Your task to perform on an android device: stop showing notifications on the lock screen Image 0: 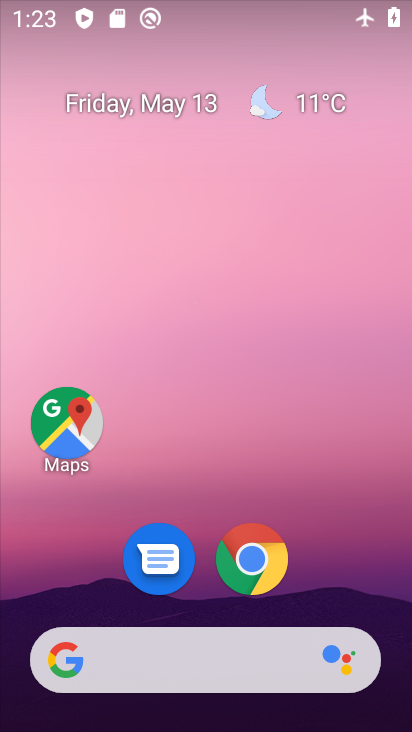
Step 0: click (354, 289)
Your task to perform on an android device: stop showing notifications on the lock screen Image 1: 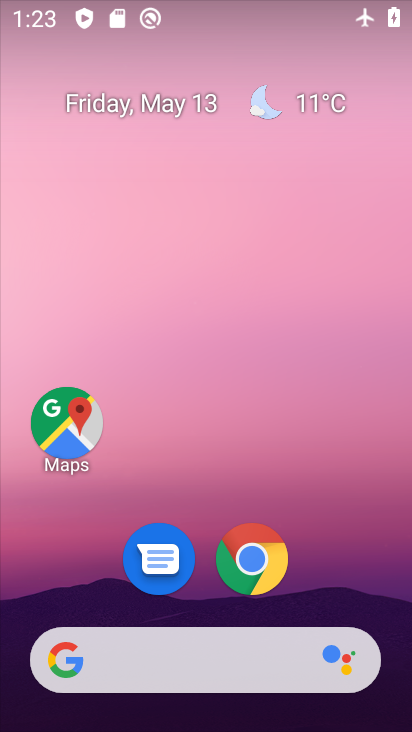
Step 1: drag from (389, 470) to (362, 261)
Your task to perform on an android device: stop showing notifications on the lock screen Image 2: 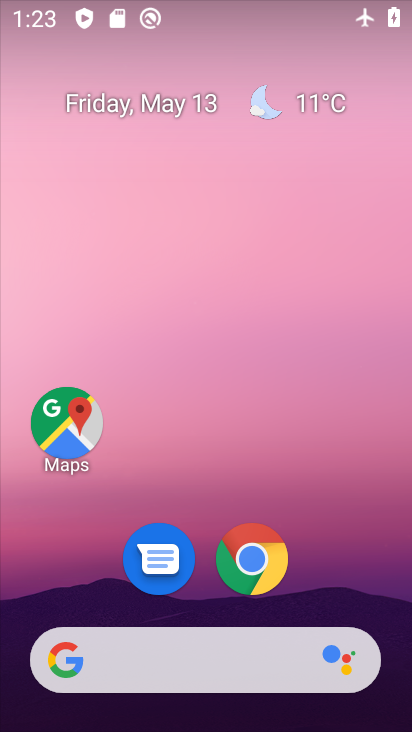
Step 2: drag from (394, 601) to (353, 257)
Your task to perform on an android device: stop showing notifications on the lock screen Image 3: 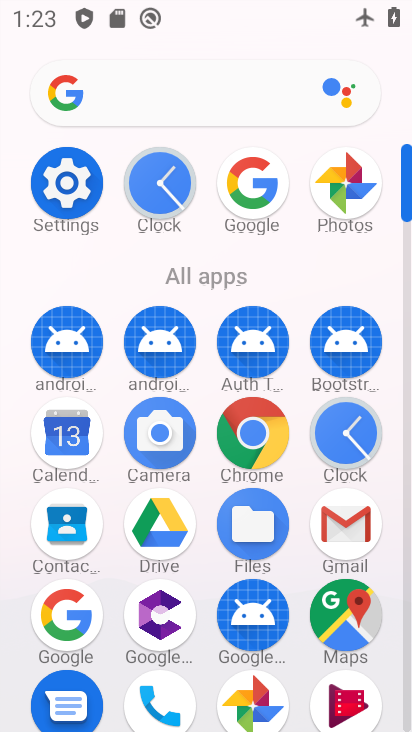
Step 3: click (74, 189)
Your task to perform on an android device: stop showing notifications on the lock screen Image 4: 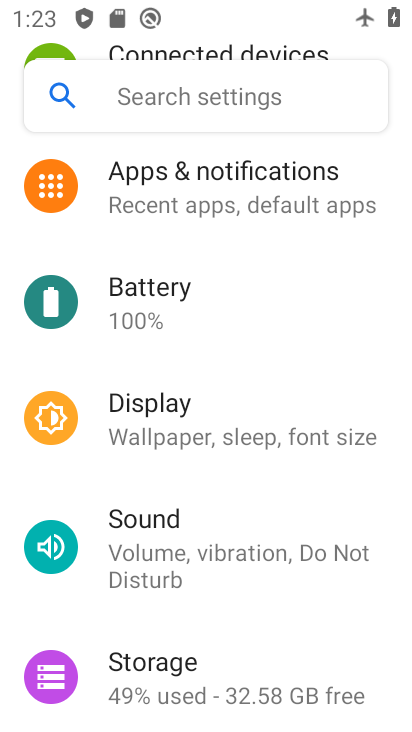
Step 4: click (218, 188)
Your task to perform on an android device: stop showing notifications on the lock screen Image 5: 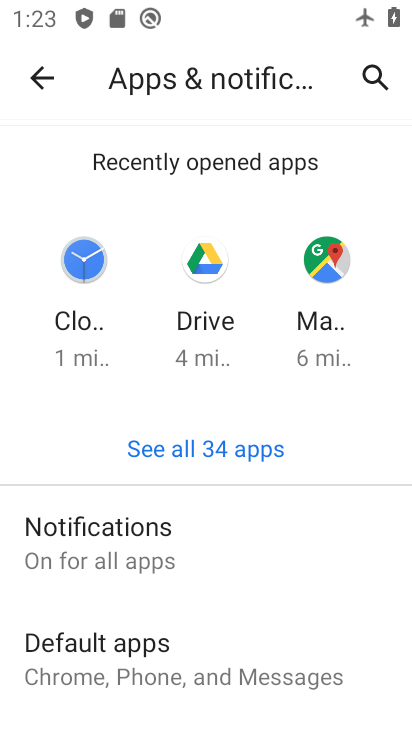
Step 5: click (103, 542)
Your task to perform on an android device: stop showing notifications on the lock screen Image 6: 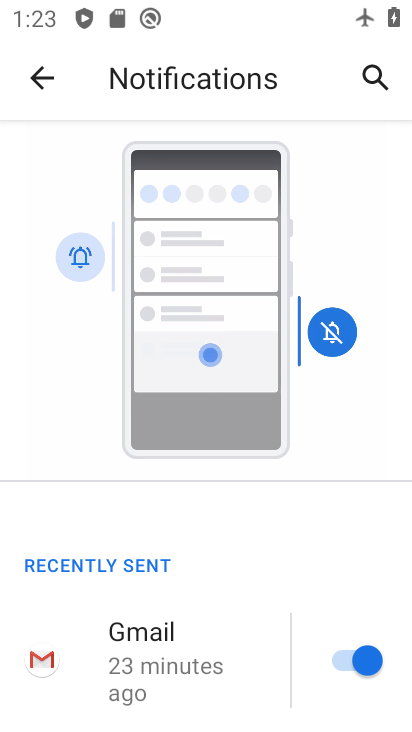
Step 6: drag from (272, 663) to (262, 365)
Your task to perform on an android device: stop showing notifications on the lock screen Image 7: 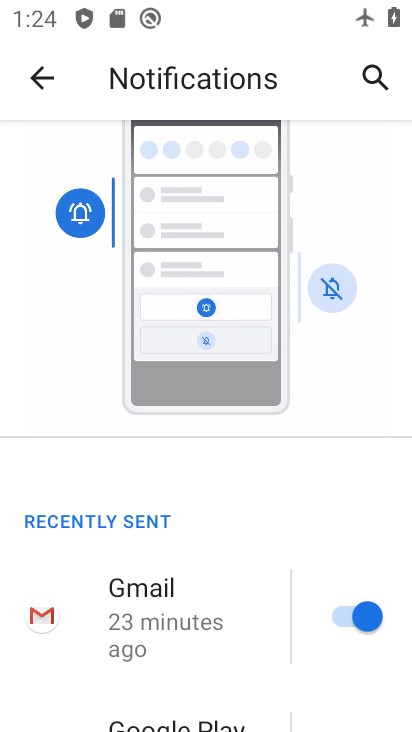
Step 7: drag from (246, 678) to (262, 450)
Your task to perform on an android device: stop showing notifications on the lock screen Image 8: 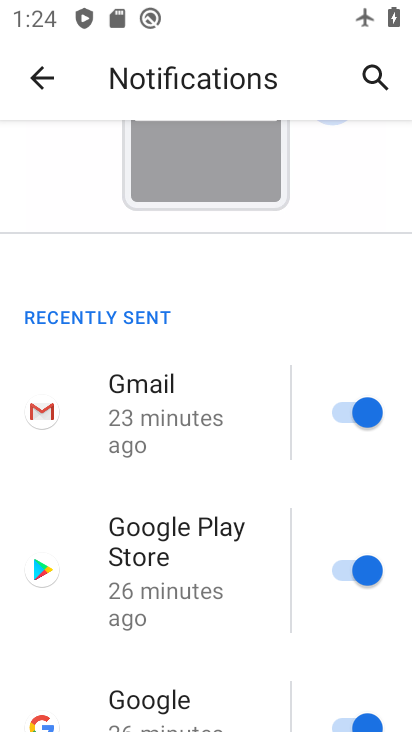
Step 8: drag from (276, 696) to (295, 365)
Your task to perform on an android device: stop showing notifications on the lock screen Image 9: 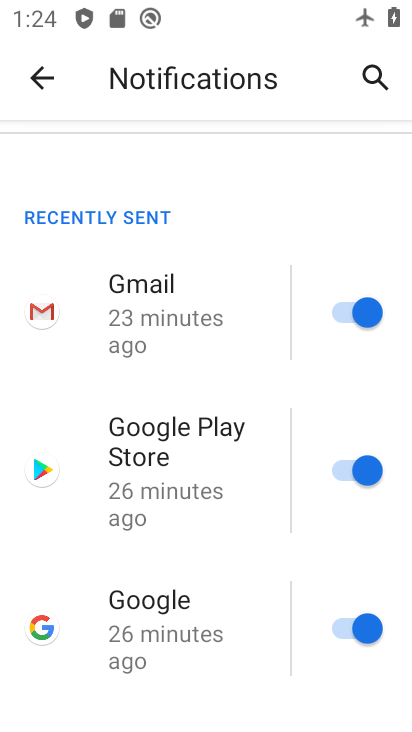
Step 9: drag from (270, 675) to (271, 370)
Your task to perform on an android device: stop showing notifications on the lock screen Image 10: 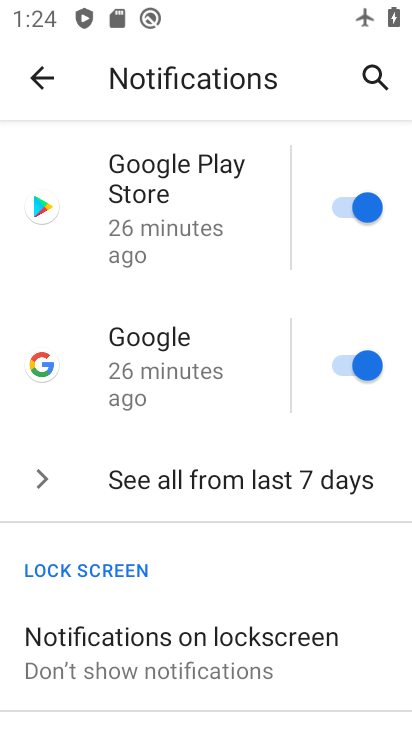
Step 10: drag from (268, 593) to (275, 297)
Your task to perform on an android device: stop showing notifications on the lock screen Image 11: 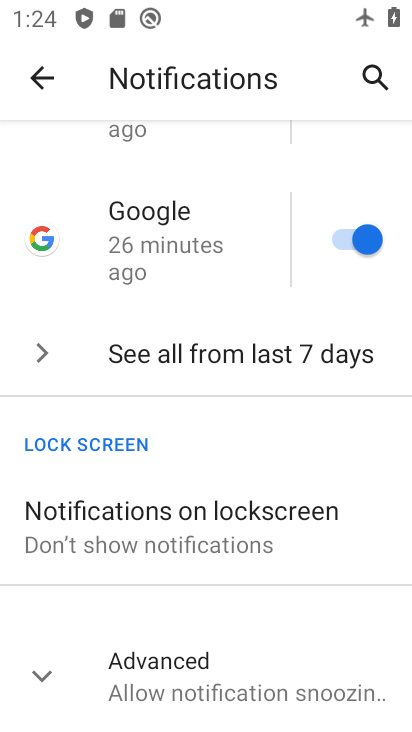
Step 11: click (110, 534)
Your task to perform on an android device: stop showing notifications on the lock screen Image 12: 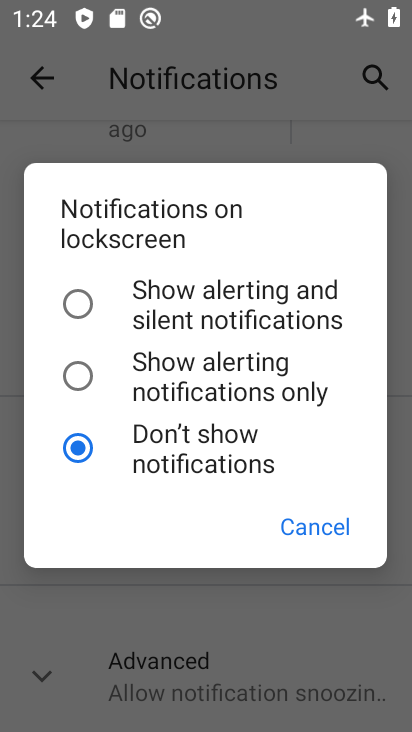
Step 12: task complete